Your task to perform on an android device: turn off location Image 0: 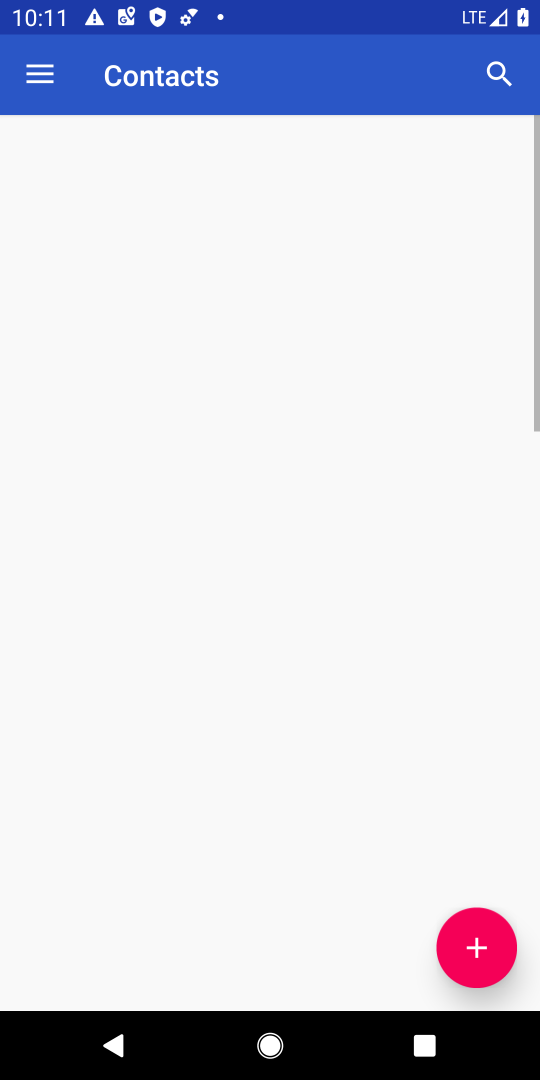
Step 0: press back button
Your task to perform on an android device: turn off location Image 1: 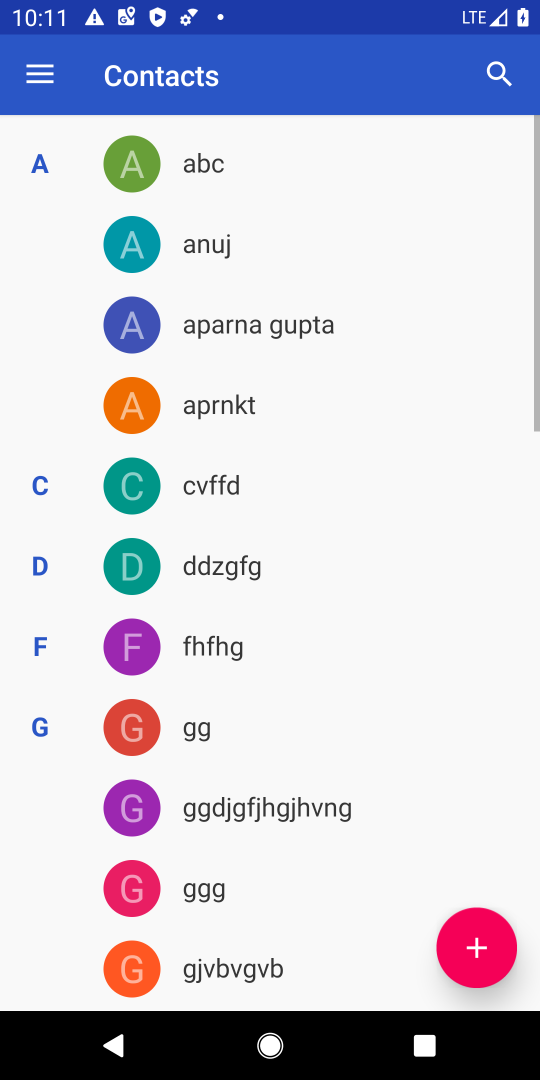
Step 1: press back button
Your task to perform on an android device: turn off location Image 2: 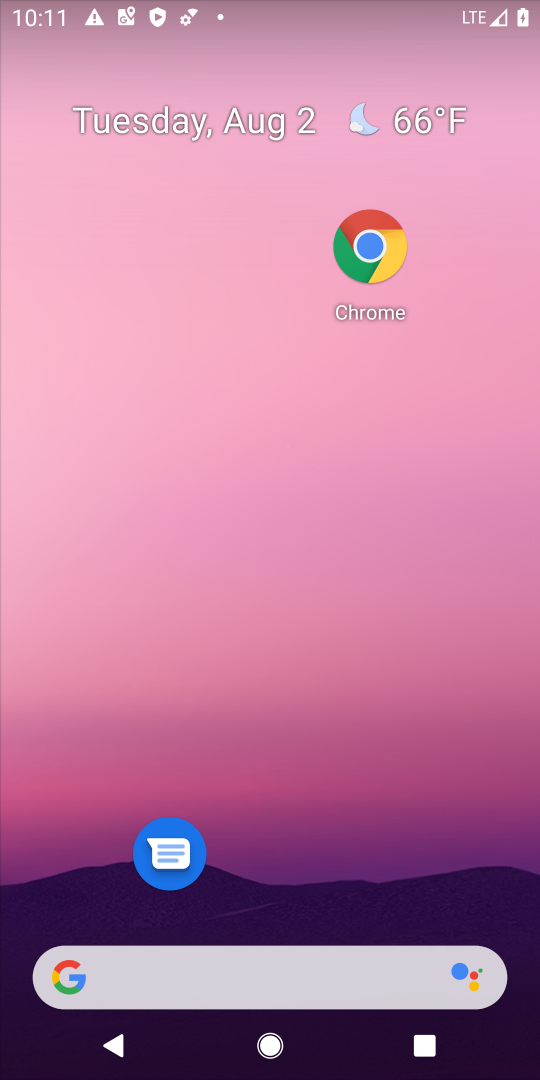
Step 2: drag from (298, 915) to (248, 21)
Your task to perform on an android device: turn off location Image 3: 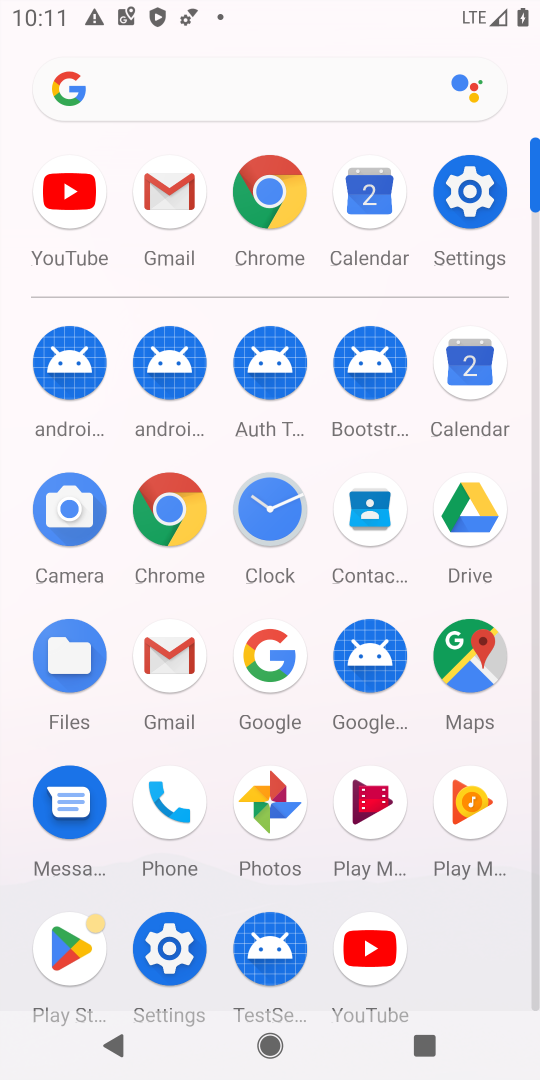
Step 3: click (467, 214)
Your task to perform on an android device: turn off location Image 4: 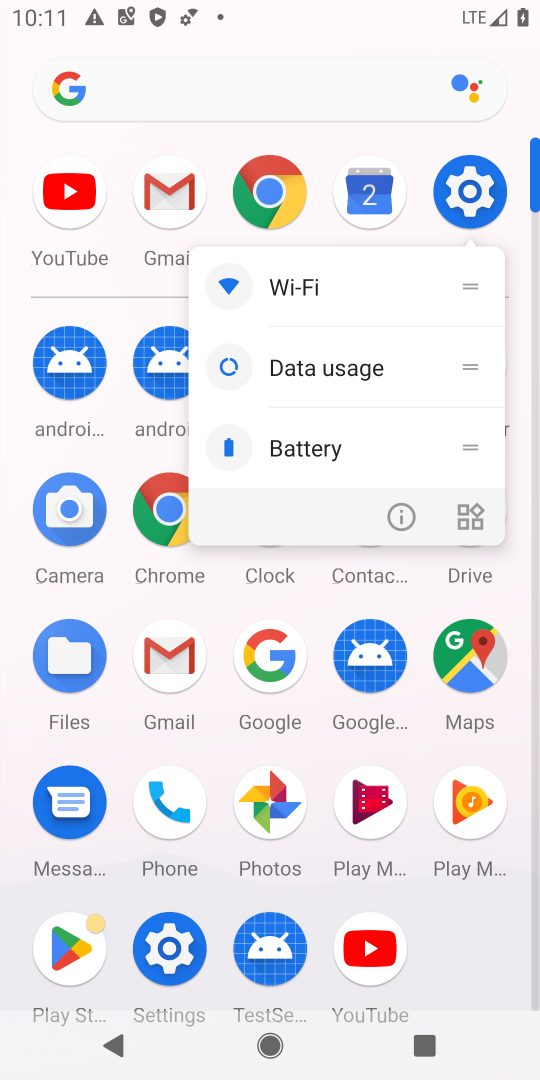
Step 4: click (484, 201)
Your task to perform on an android device: turn off location Image 5: 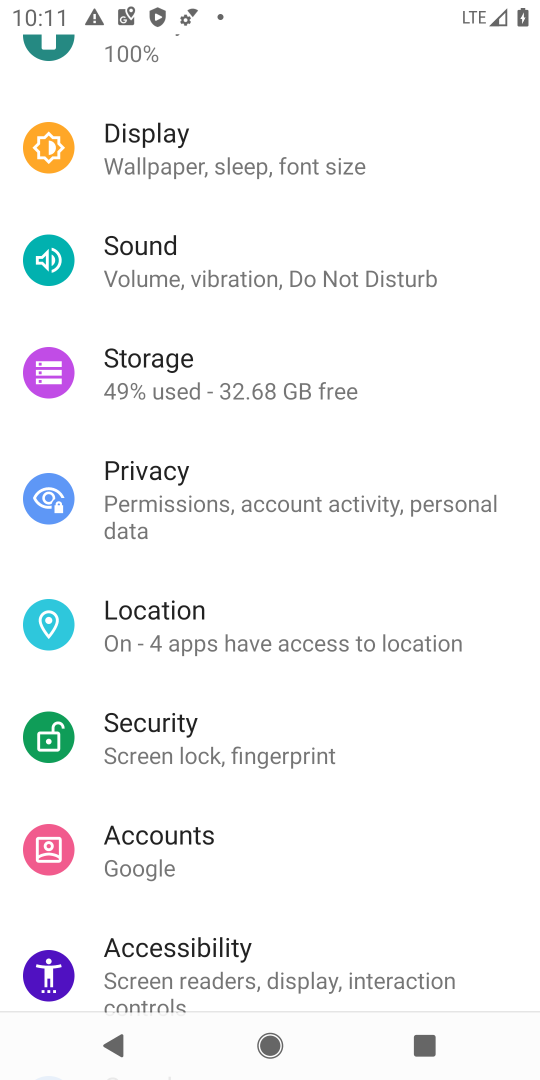
Step 5: click (174, 634)
Your task to perform on an android device: turn off location Image 6: 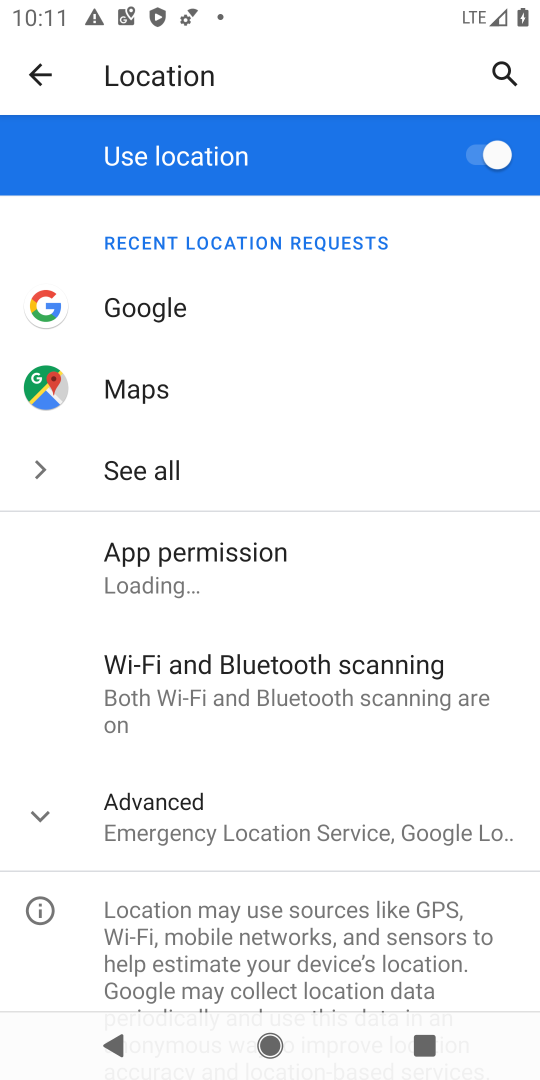
Step 6: click (469, 165)
Your task to perform on an android device: turn off location Image 7: 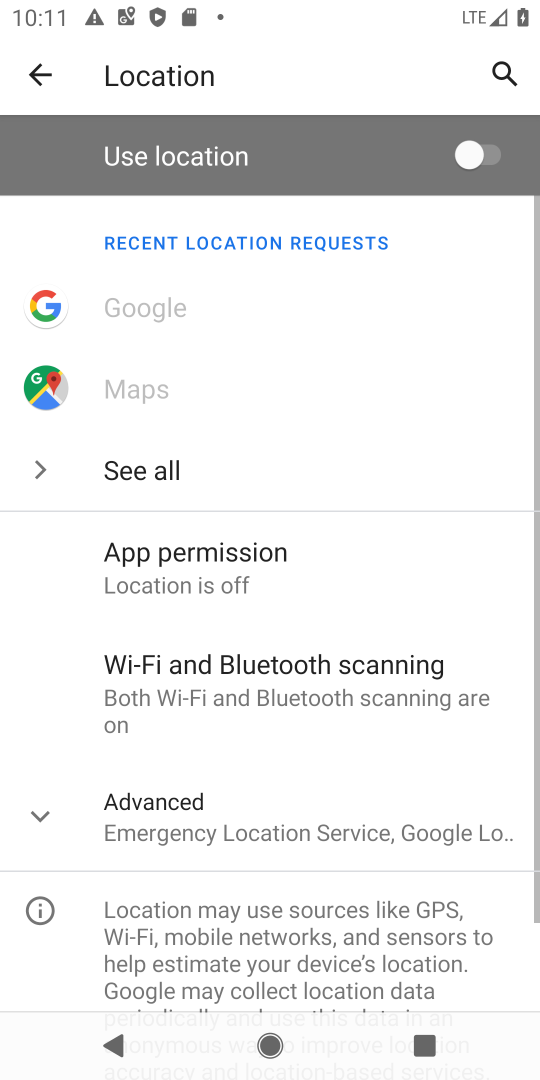
Step 7: task complete